Your task to perform on an android device: snooze an email in the gmail app Image 0: 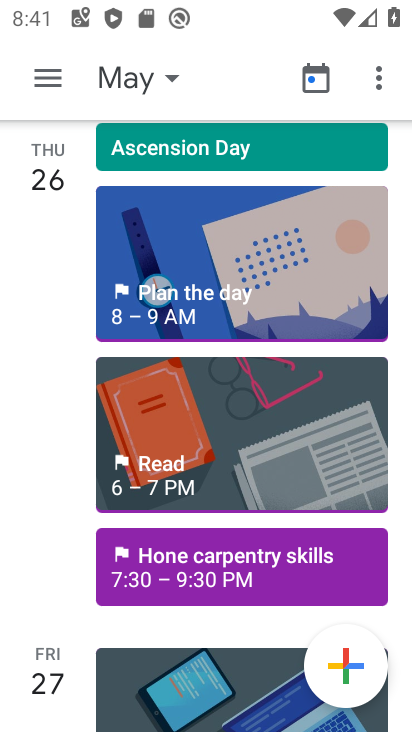
Step 0: press home button
Your task to perform on an android device: snooze an email in the gmail app Image 1: 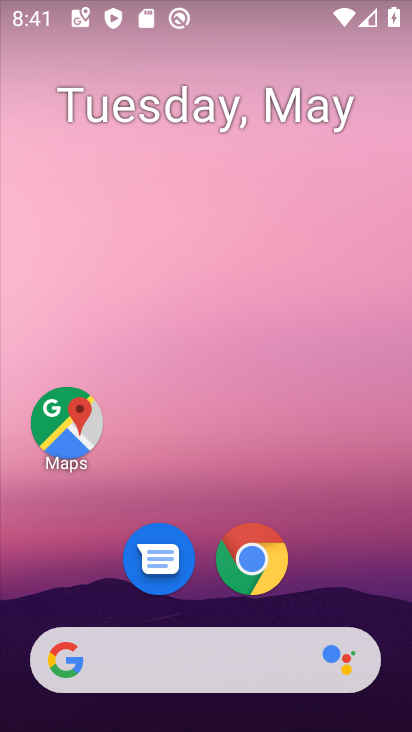
Step 1: drag from (202, 668) to (287, 124)
Your task to perform on an android device: snooze an email in the gmail app Image 2: 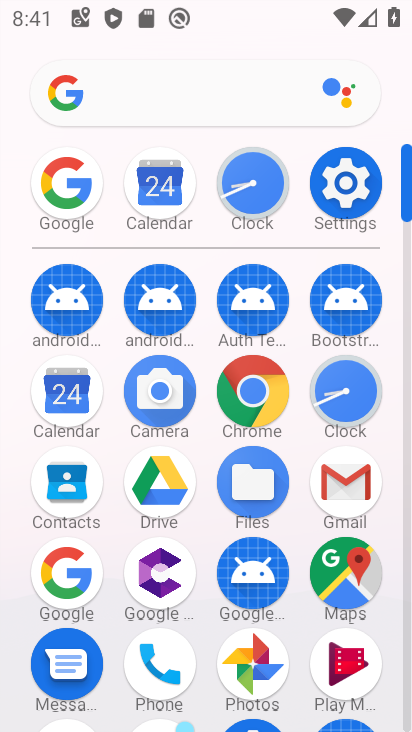
Step 2: click (363, 489)
Your task to perform on an android device: snooze an email in the gmail app Image 3: 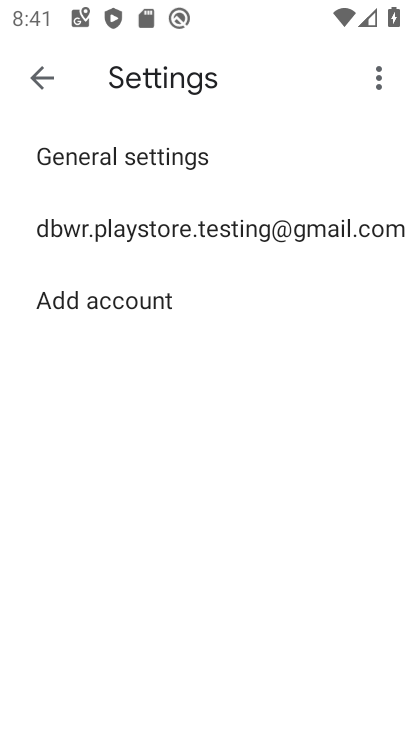
Step 3: click (52, 80)
Your task to perform on an android device: snooze an email in the gmail app Image 4: 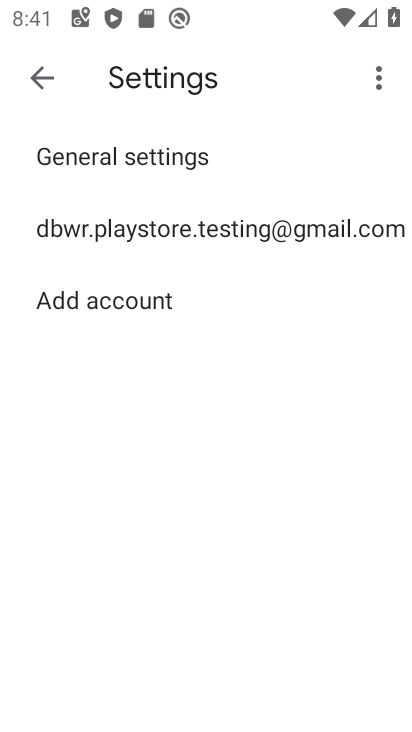
Step 4: click (38, 82)
Your task to perform on an android device: snooze an email in the gmail app Image 5: 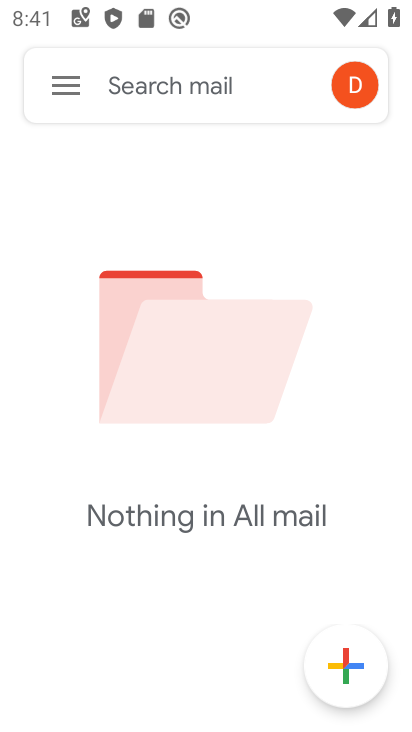
Step 5: click (68, 85)
Your task to perform on an android device: snooze an email in the gmail app Image 6: 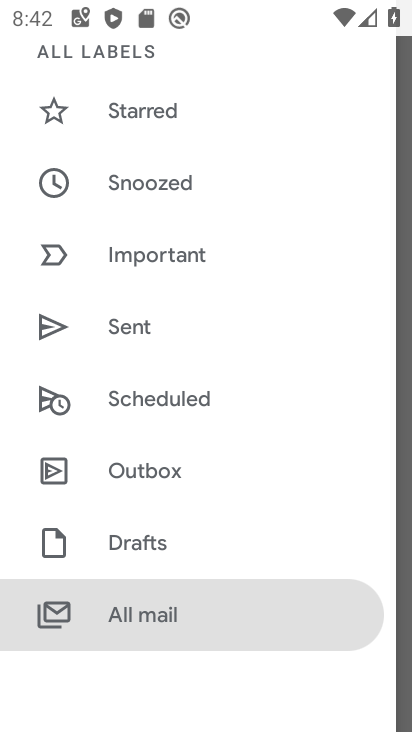
Step 6: click (167, 606)
Your task to perform on an android device: snooze an email in the gmail app Image 7: 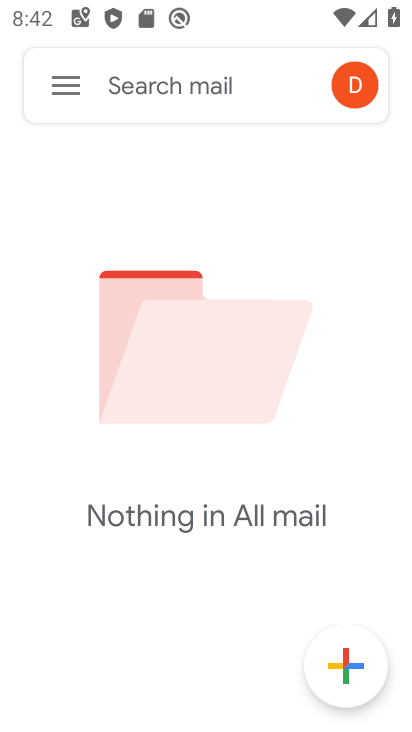
Step 7: task complete